Your task to perform on an android device: read, delete, or share a saved page in the chrome app Image 0: 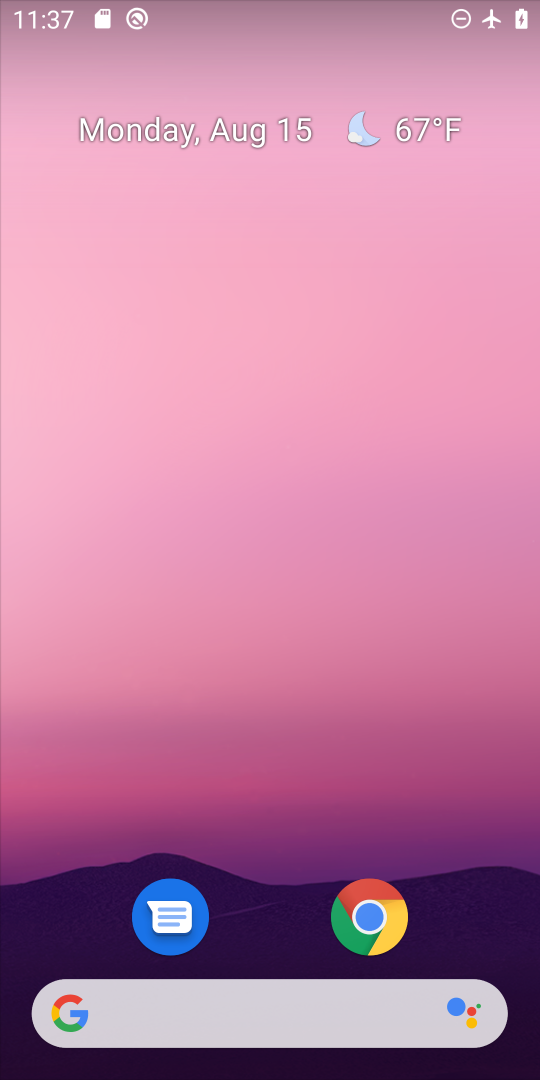
Step 0: click (374, 900)
Your task to perform on an android device: read, delete, or share a saved page in the chrome app Image 1: 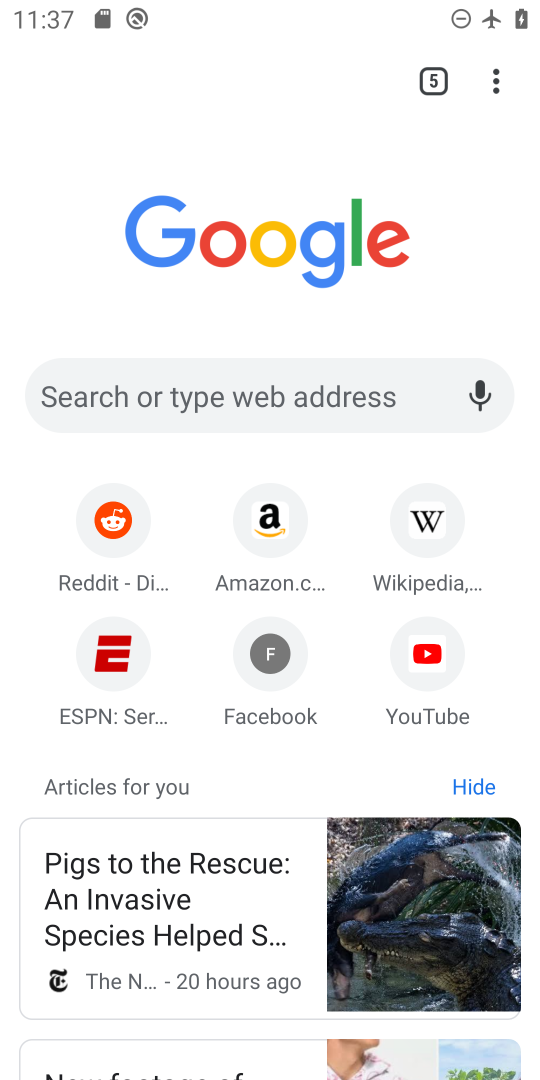
Step 1: click (495, 84)
Your task to perform on an android device: read, delete, or share a saved page in the chrome app Image 2: 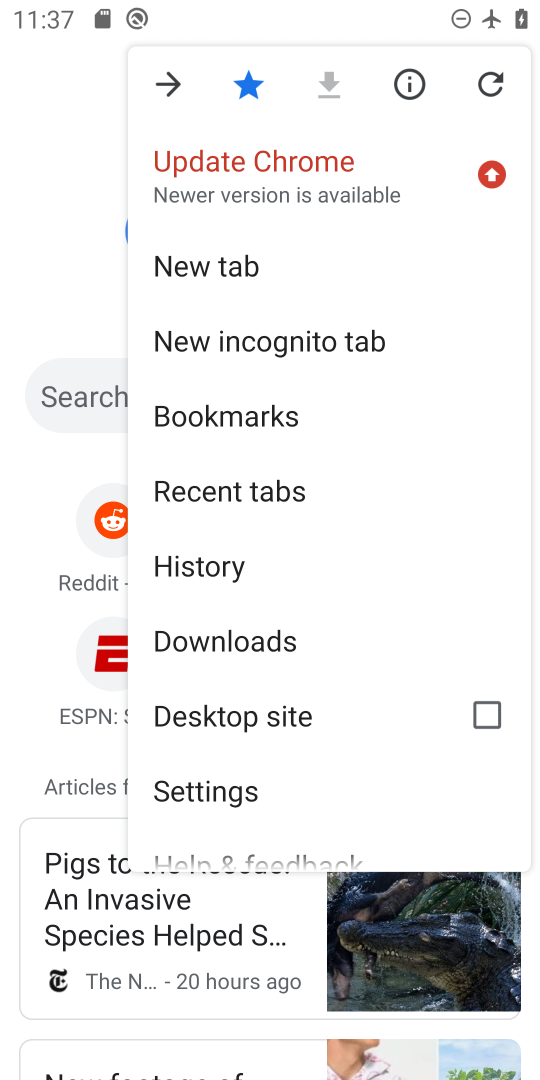
Step 2: click (227, 636)
Your task to perform on an android device: read, delete, or share a saved page in the chrome app Image 3: 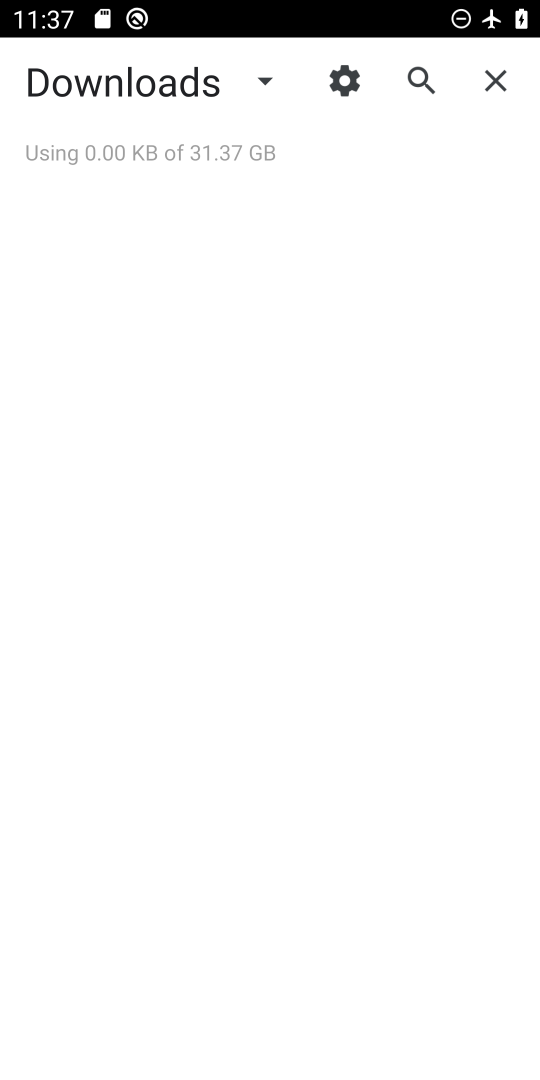
Step 3: task complete